Your task to perform on an android device: make emails show in primary in the gmail app Image 0: 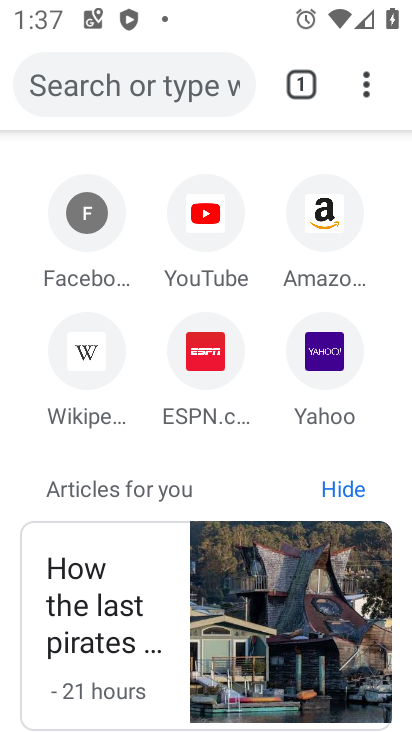
Step 0: press home button
Your task to perform on an android device: make emails show in primary in the gmail app Image 1: 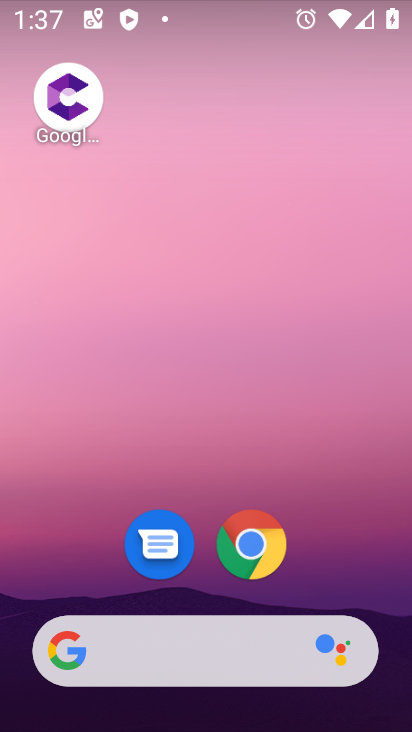
Step 1: drag from (398, 637) to (387, 118)
Your task to perform on an android device: make emails show in primary in the gmail app Image 2: 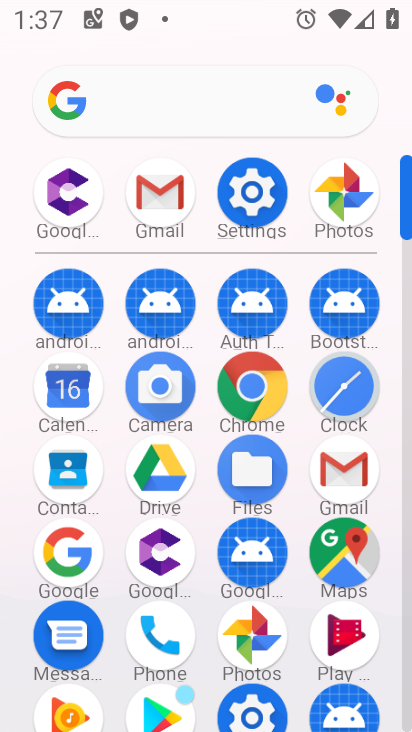
Step 2: click (405, 718)
Your task to perform on an android device: make emails show in primary in the gmail app Image 3: 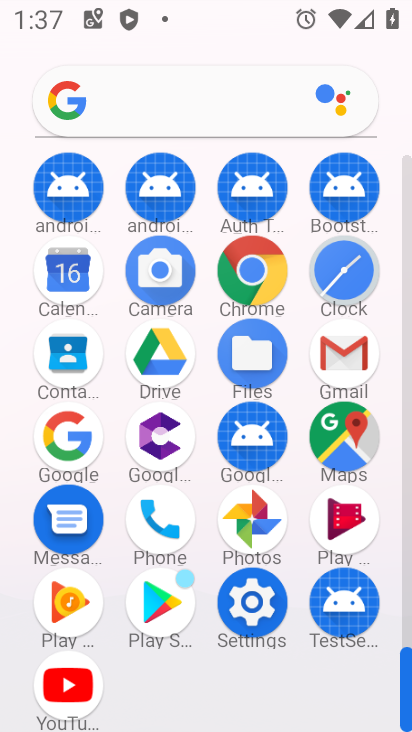
Step 3: click (345, 356)
Your task to perform on an android device: make emails show in primary in the gmail app Image 4: 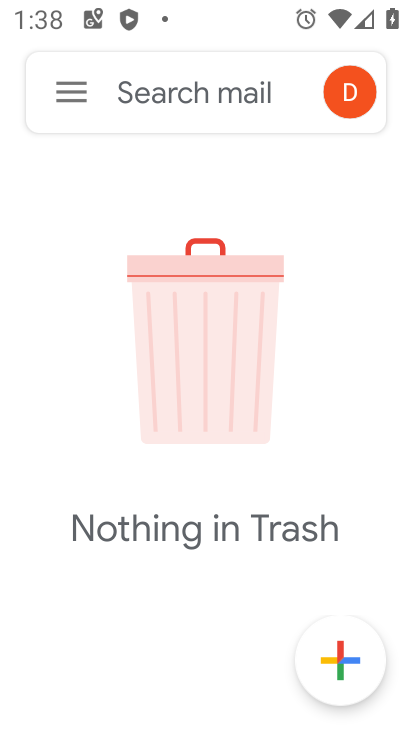
Step 4: click (69, 88)
Your task to perform on an android device: make emails show in primary in the gmail app Image 5: 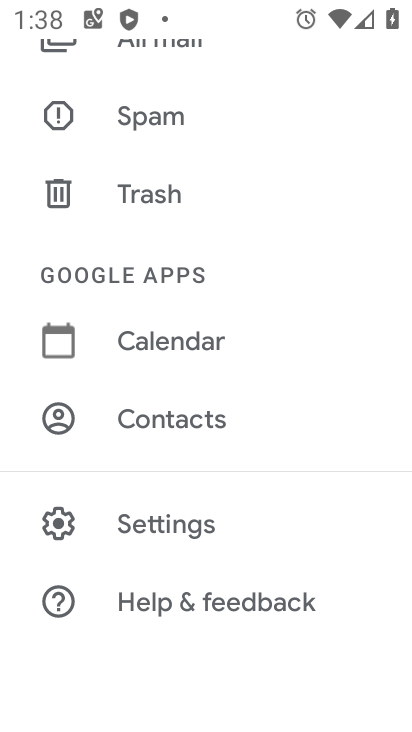
Step 5: click (166, 527)
Your task to perform on an android device: make emails show in primary in the gmail app Image 6: 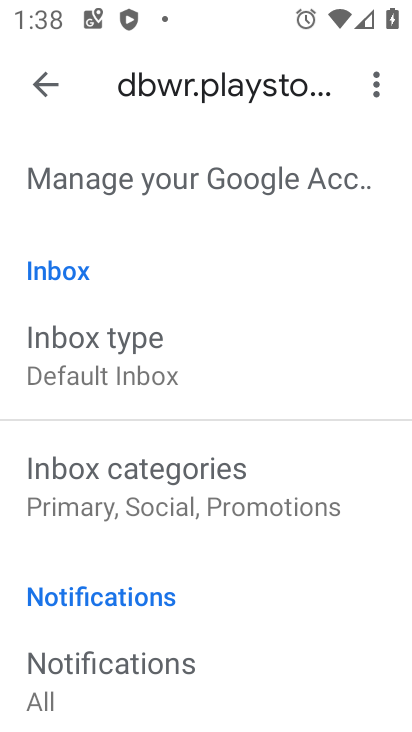
Step 6: click (75, 352)
Your task to perform on an android device: make emails show in primary in the gmail app Image 7: 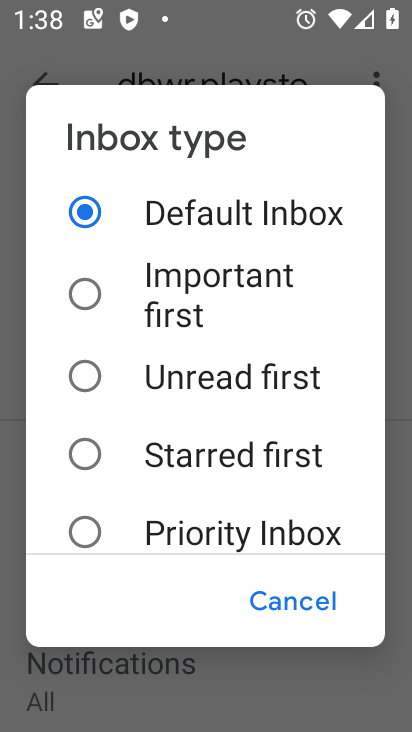
Step 7: click (283, 610)
Your task to perform on an android device: make emails show in primary in the gmail app Image 8: 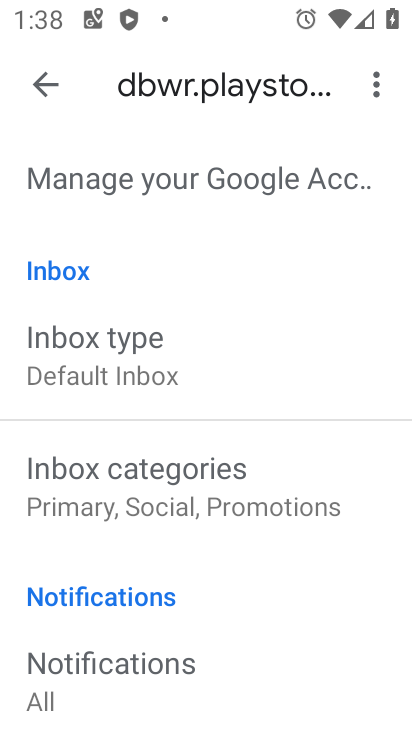
Step 8: click (93, 488)
Your task to perform on an android device: make emails show in primary in the gmail app Image 9: 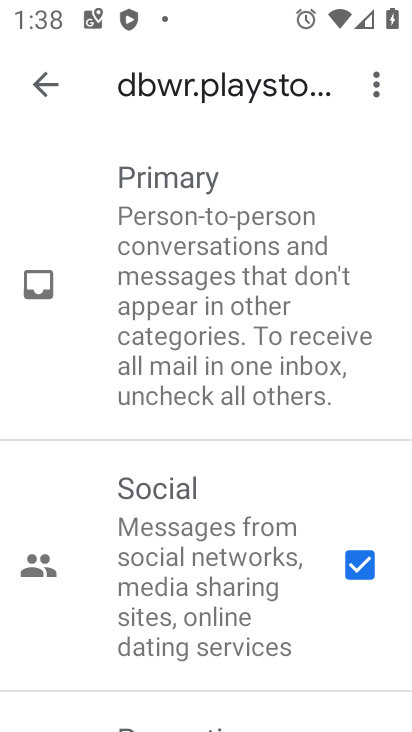
Step 9: click (351, 565)
Your task to perform on an android device: make emails show in primary in the gmail app Image 10: 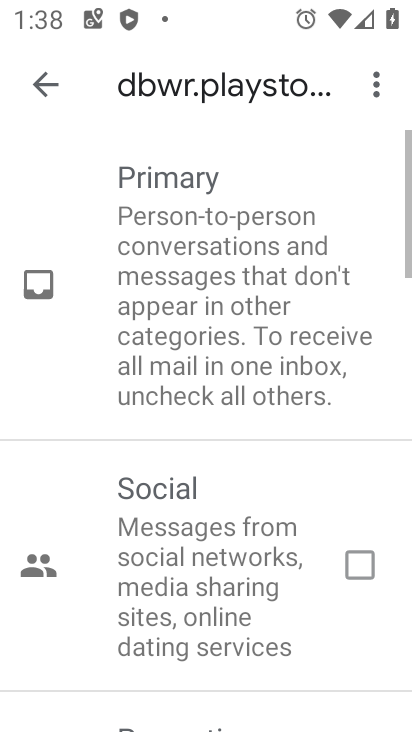
Step 10: drag from (270, 599) to (318, 152)
Your task to perform on an android device: make emails show in primary in the gmail app Image 11: 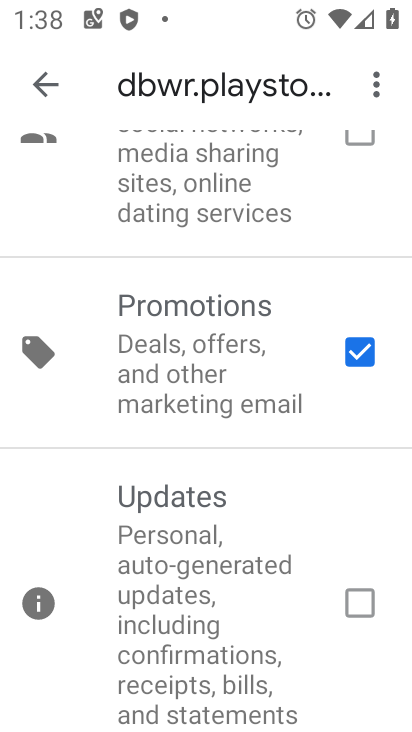
Step 11: click (352, 350)
Your task to perform on an android device: make emails show in primary in the gmail app Image 12: 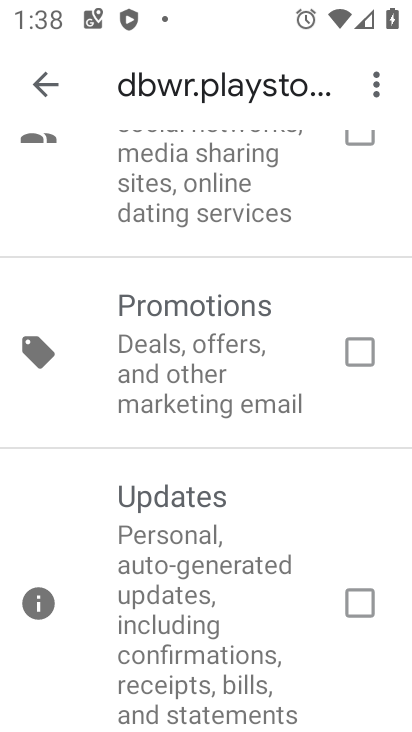
Step 12: task complete